Your task to perform on an android device: turn on showing notifications on the lock screen Image 0: 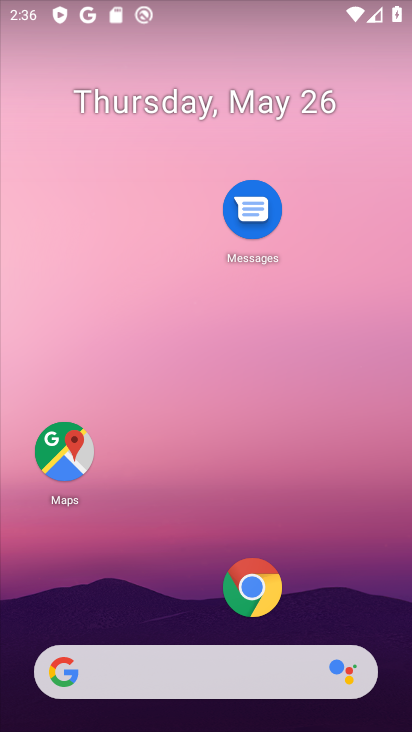
Step 0: drag from (156, 621) to (217, 302)
Your task to perform on an android device: turn on showing notifications on the lock screen Image 1: 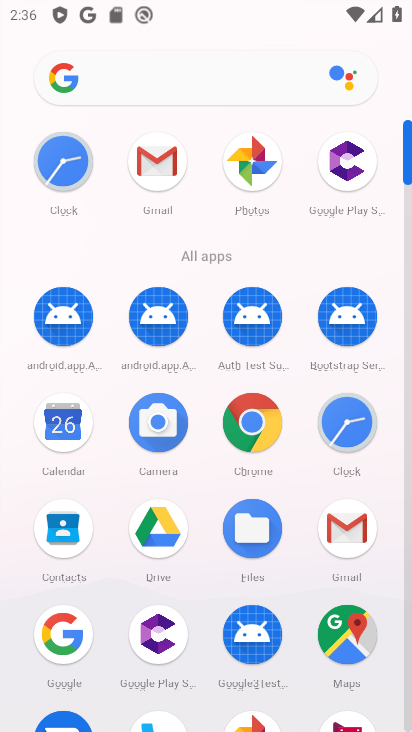
Step 1: drag from (99, 619) to (151, 378)
Your task to perform on an android device: turn on showing notifications on the lock screen Image 2: 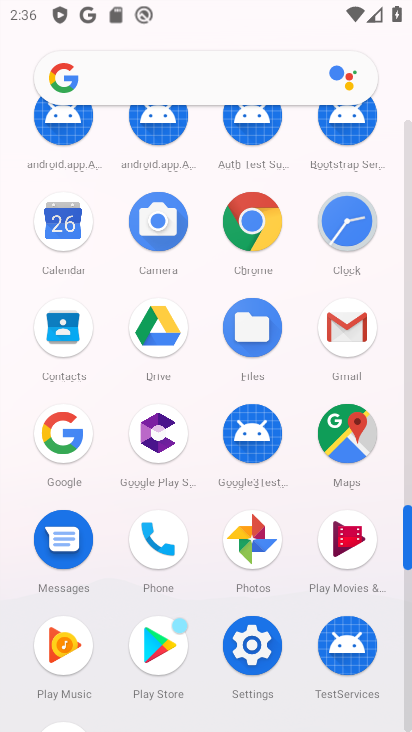
Step 2: click (237, 654)
Your task to perform on an android device: turn on showing notifications on the lock screen Image 3: 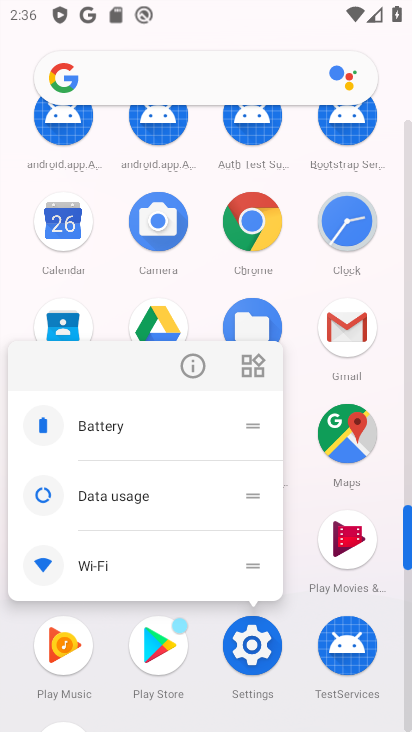
Step 3: click (233, 654)
Your task to perform on an android device: turn on showing notifications on the lock screen Image 4: 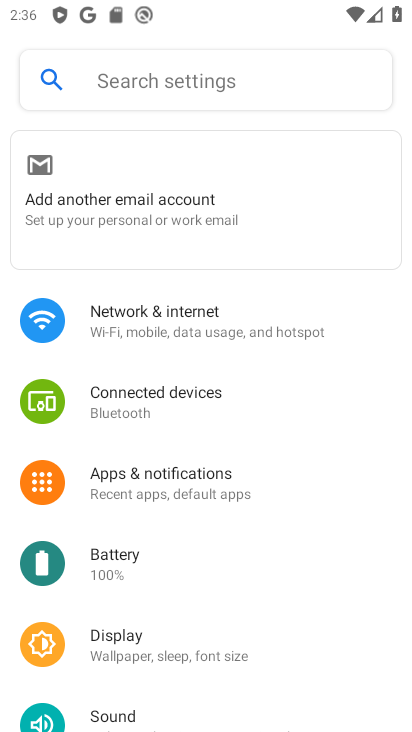
Step 4: click (195, 478)
Your task to perform on an android device: turn on showing notifications on the lock screen Image 5: 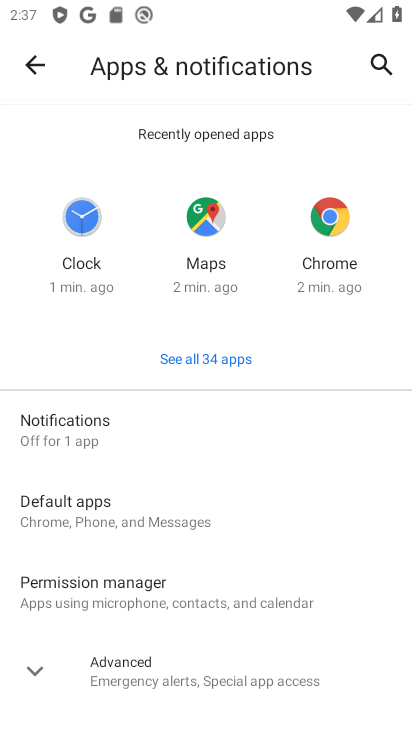
Step 5: click (142, 435)
Your task to perform on an android device: turn on showing notifications on the lock screen Image 6: 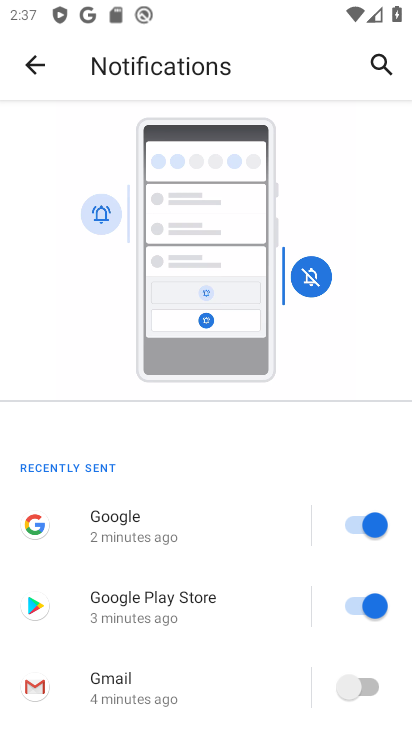
Step 6: drag from (146, 597) to (176, 297)
Your task to perform on an android device: turn on showing notifications on the lock screen Image 7: 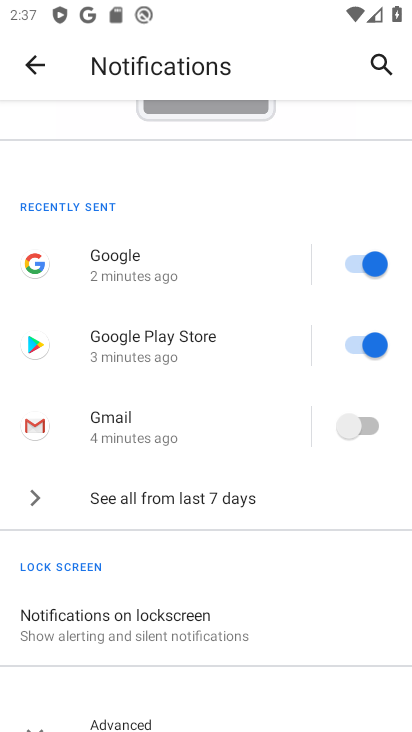
Step 7: drag from (187, 615) to (194, 460)
Your task to perform on an android device: turn on showing notifications on the lock screen Image 8: 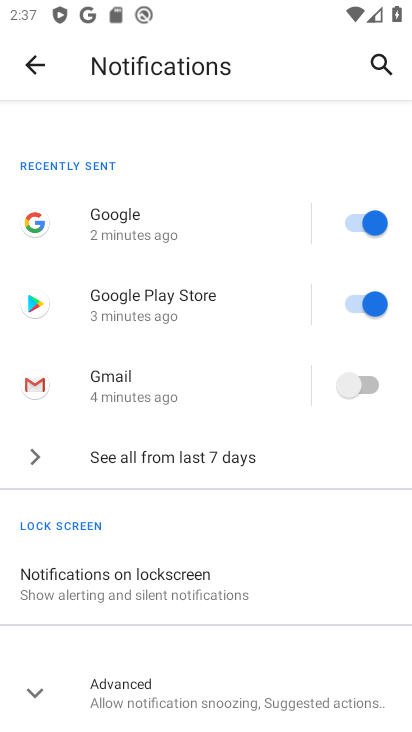
Step 8: click (165, 582)
Your task to perform on an android device: turn on showing notifications on the lock screen Image 9: 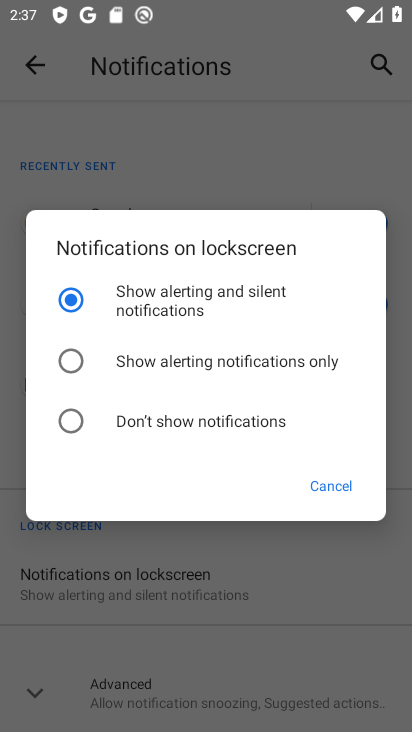
Step 9: task complete